Your task to perform on an android device: What's the weather going to be tomorrow? Image 0: 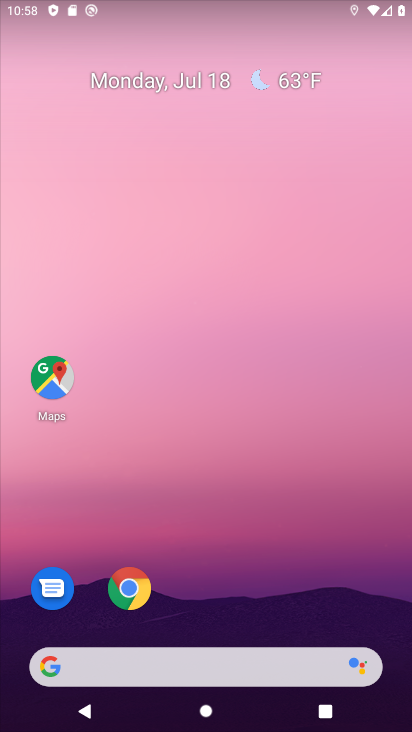
Step 0: click (273, 82)
Your task to perform on an android device: What's the weather going to be tomorrow? Image 1: 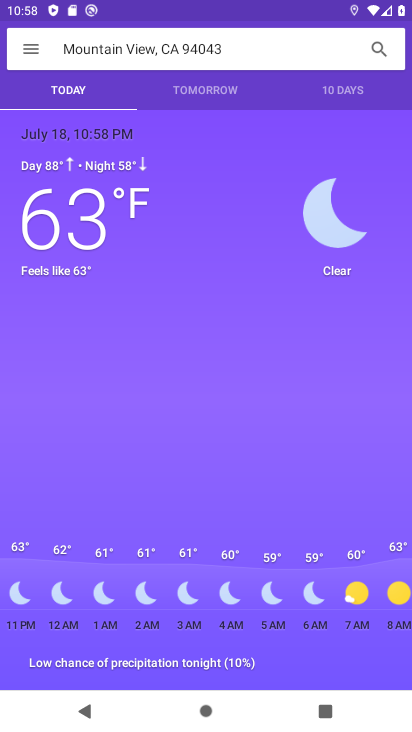
Step 1: click (213, 94)
Your task to perform on an android device: What's the weather going to be tomorrow? Image 2: 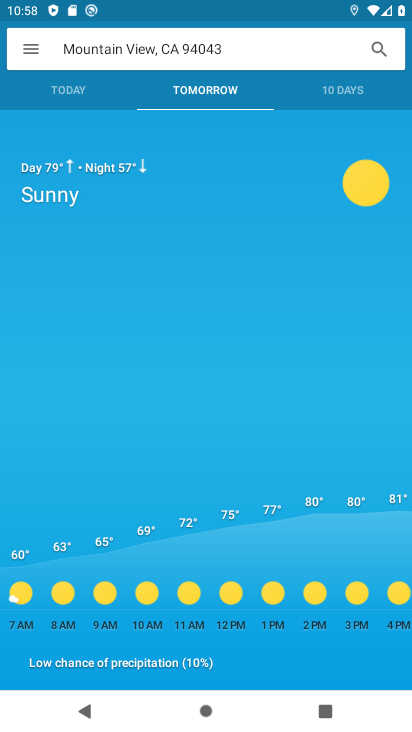
Step 2: task complete